Your task to perform on an android device: turn pop-ups on in chrome Image 0: 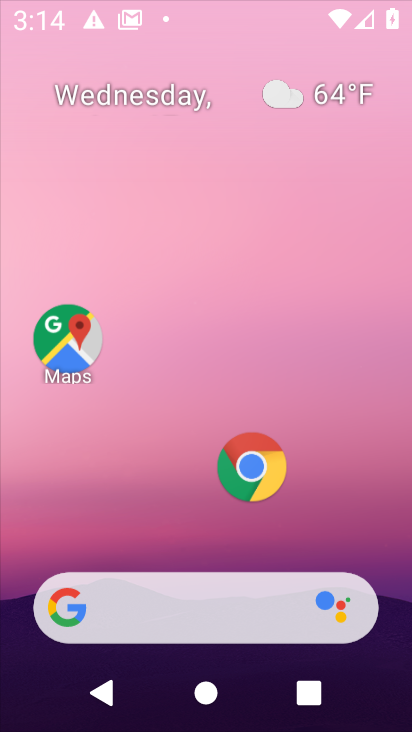
Step 0: drag from (174, 291) to (184, 233)
Your task to perform on an android device: turn pop-ups on in chrome Image 1: 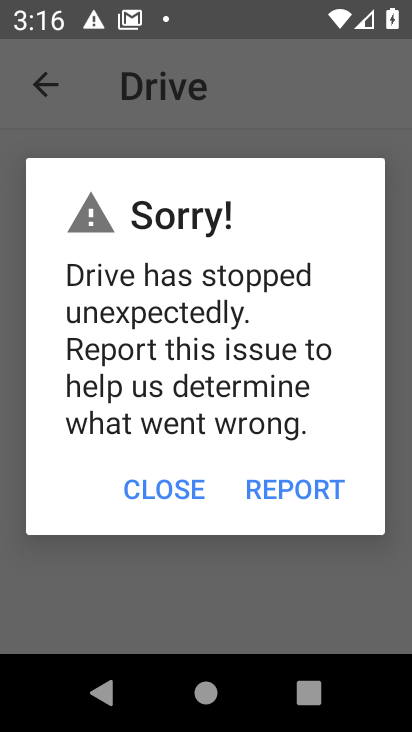
Step 1: task complete